Your task to perform on an android device: clear all cookies in the chrome app Image 0: 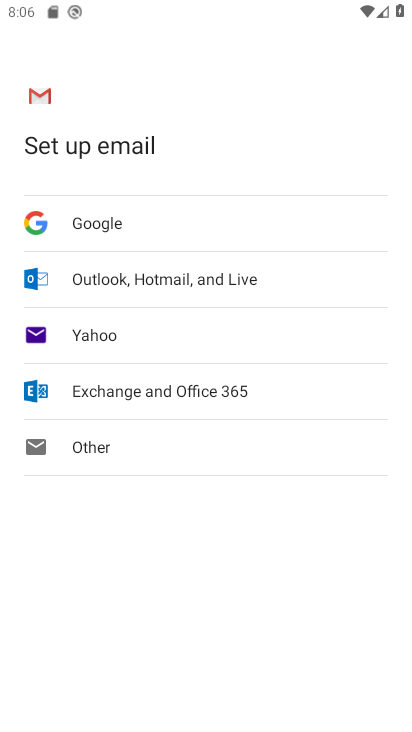
Step 0: press back button
Your task to perform on an android device: clear all cookies in the chrome app Image 1: 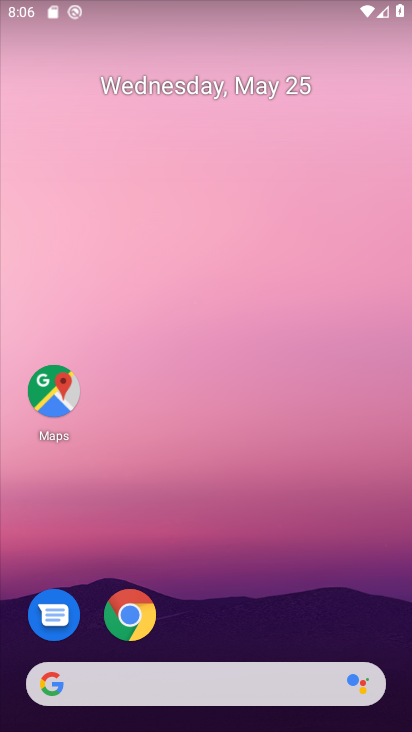
Step 1: drag from (259, 601) to (216, 6)
Your task to perform on an android device: clear all cookies in the chrome app Image 2: 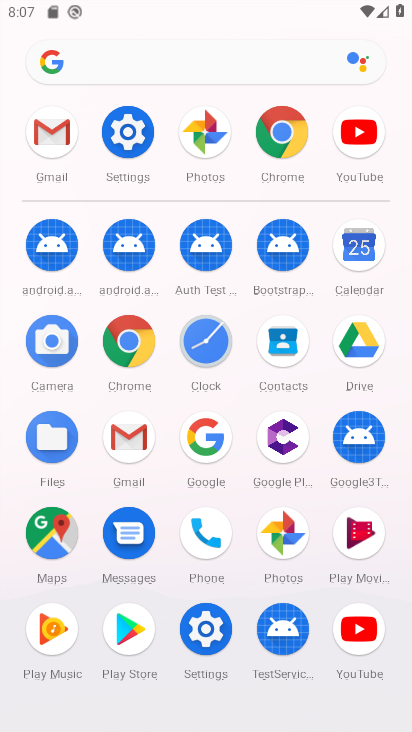
Step 2: click (284, 127)
Your task to perform on an android device: clear all cookies in the chrome app Image 3: 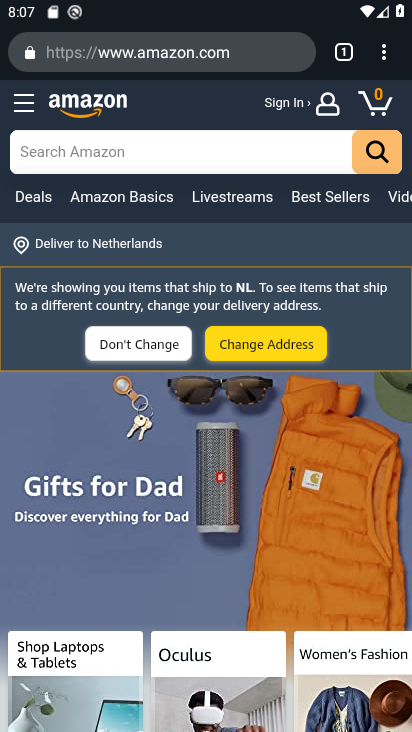
Step 3: drag from (390, 61) to (215, 620)
Your task to perform on an android device: clear all cookies in the chrome app Image 4: 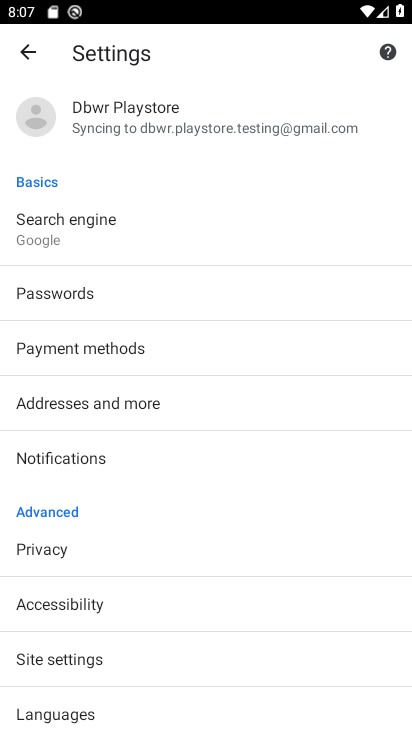
Step 4: click (97, 555)
Your task to perform on an android device: clear all cookies in the chrome app Image 5: 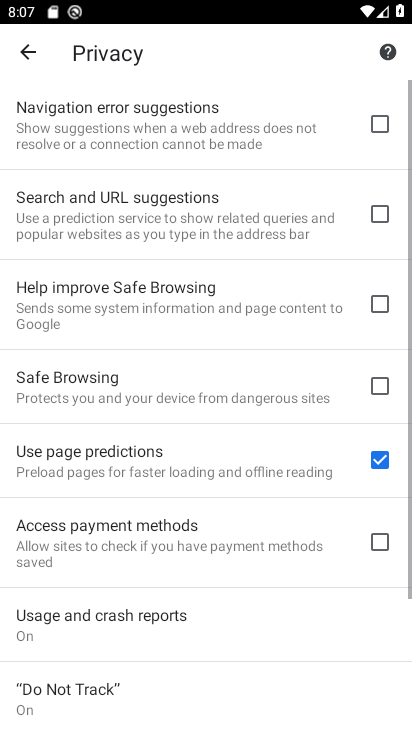
Step 5: drag from (208, 627) to (246, 41)
Your task to perform on an android device: clear all cookies in the chrome app Image 6: 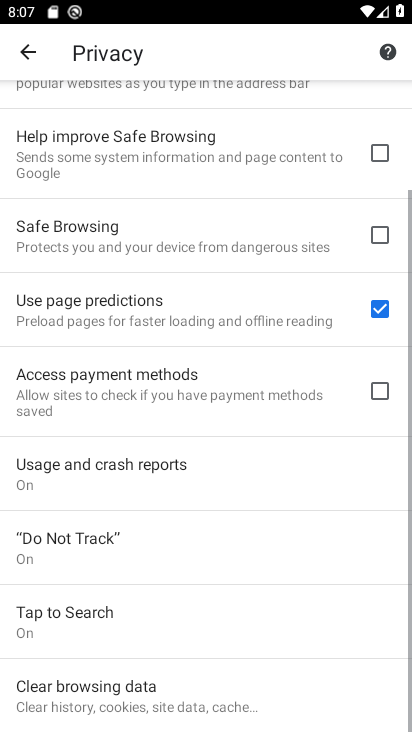
Step 6: click (134, 667)
Your task to perform on an android device: clear all cookies in the chrome app Image 7: 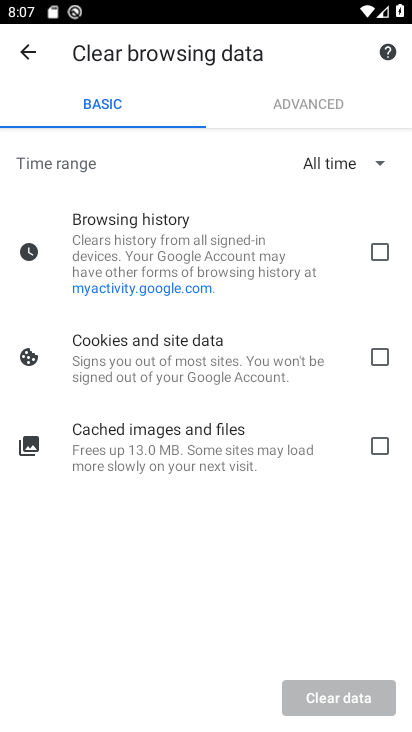
Step 7: click (369, 363)
Your task to perform on an android device: clear all cookies in the chrome app Image 8: 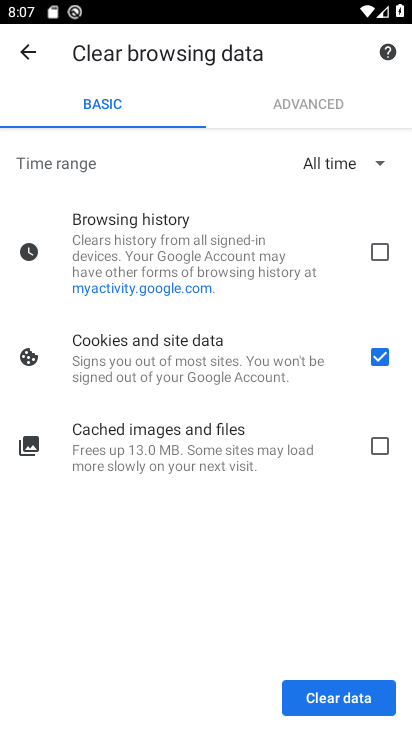
Step 8: click (314, 687)
Your task to perform on an android device: clear all cookies in the chrome app Image 9: 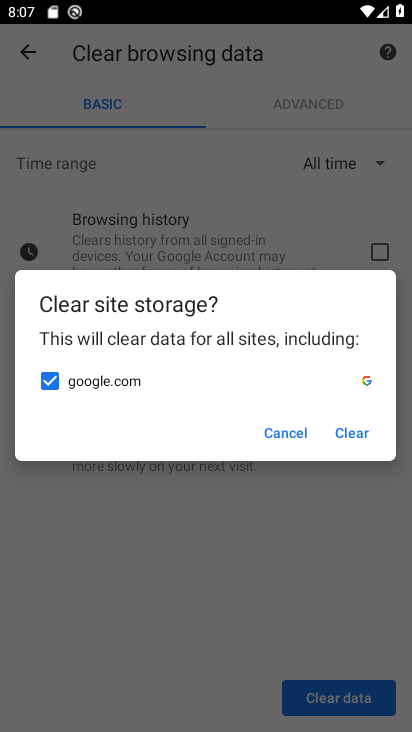
Step 9: click (360, 428)
Your task to perform on an android device: clear all cookies in the chrome app Image 10: 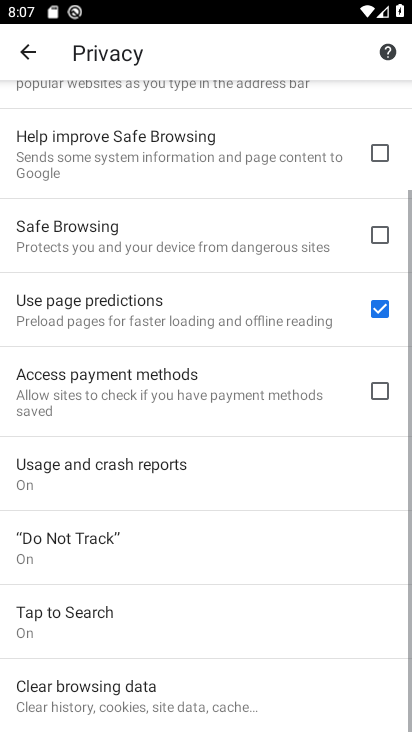
Step 10: task complete